Your task to perform on an android device: Open calendar and show me the fourth week of next month Image 0: 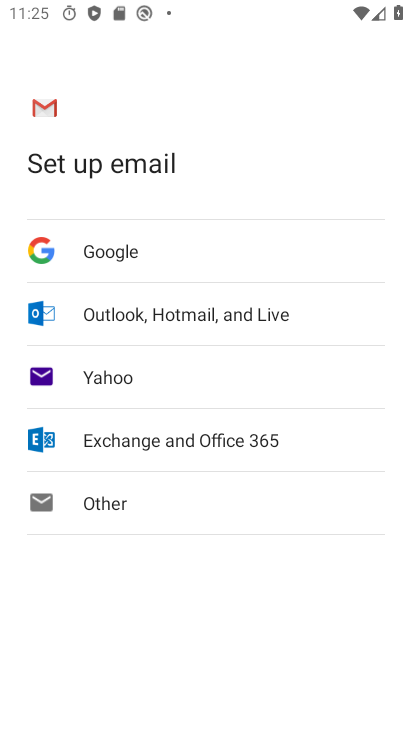
Step 0: press back button
Your task to perform on an android device: Open calendar and show me the fourth week of next month Image 1: 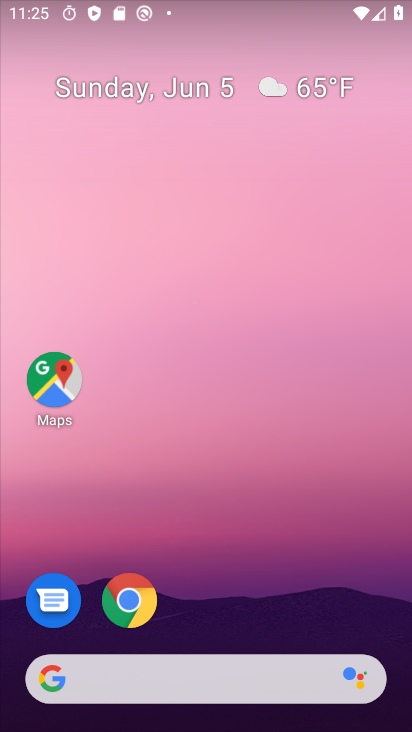
Step 1: drag from (183, 689) to (211, 12)
Your task to perform on an android device: Open calendar and show me the fourth week of next month Image 2: 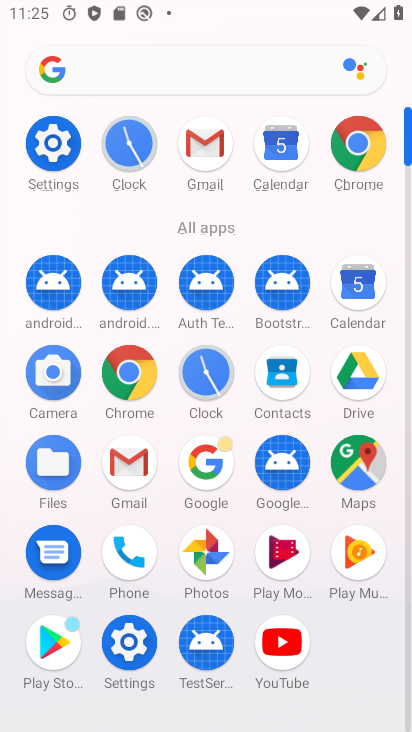
Step 2: click (358, 287)
Your task to perform on an android device: Open calendar and show me the fourth week of next month Image 3: 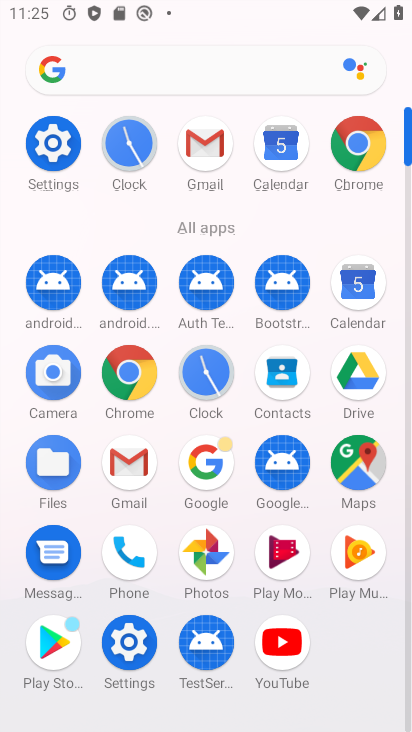
Step 3: click (358, 287)
Your task to perform on an android device: Open calendar and show me the fourth week of next month Image 4: 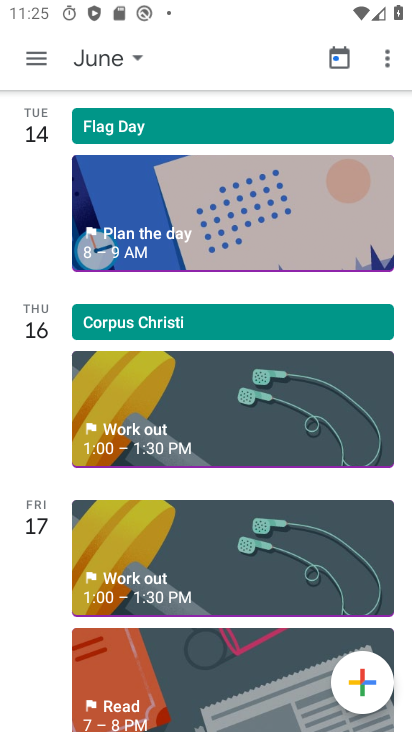
Step 4: click (136, 59)
Your task to perform on an android device: Open calendar and show me the fourth week of next month Image 5: 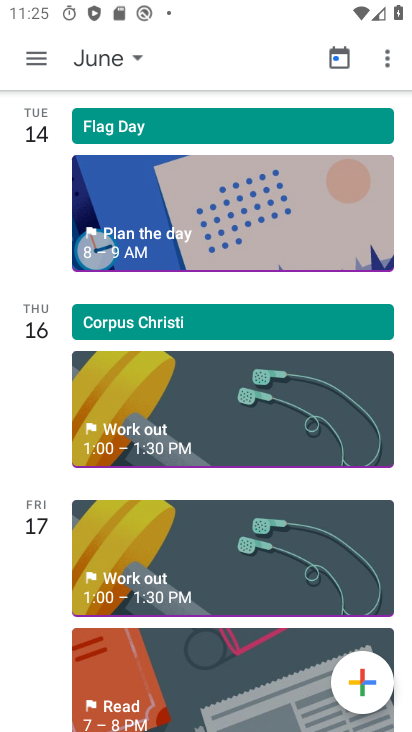
Step 5: click (140, 59)
Your task to perform on an android device: Open calendar and show me the fourth week of next month Image 6: 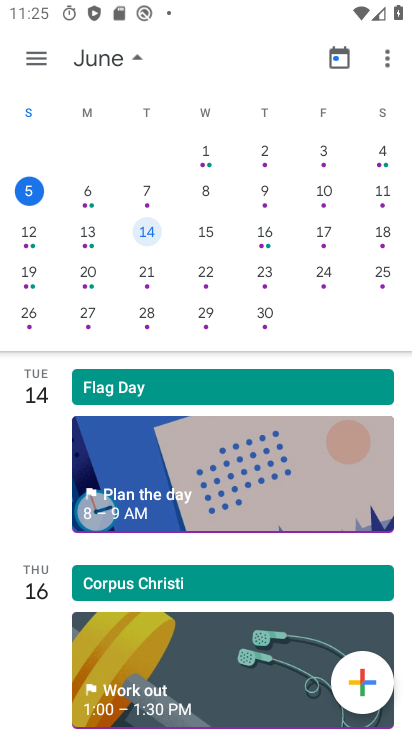
Step 6: click (205, 274)
Your task to perform on an android device: Open calendar and show me the fourth week of next month Image 7: 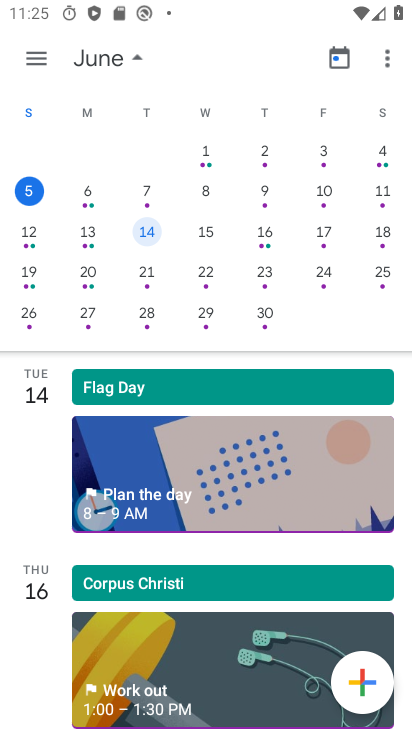
Step 7: click (205, 274)
Your task to perform on an android device: Open calendar and show me the fourth week of next month Image 8: 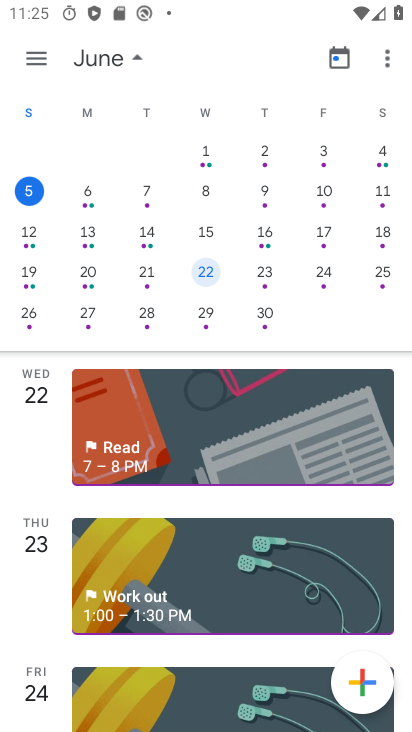
Step 8: click (205, 274)
Your task to perform on an android device: Open calendar and show me the fourth week of next month Image 9: 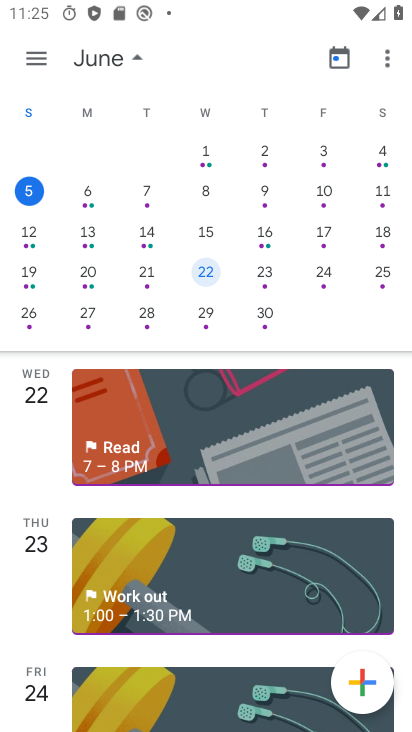
Step 9: click (206, 276)
Your task to perform on an android device: Open calendar and show me the fourth week of next month Image 10: 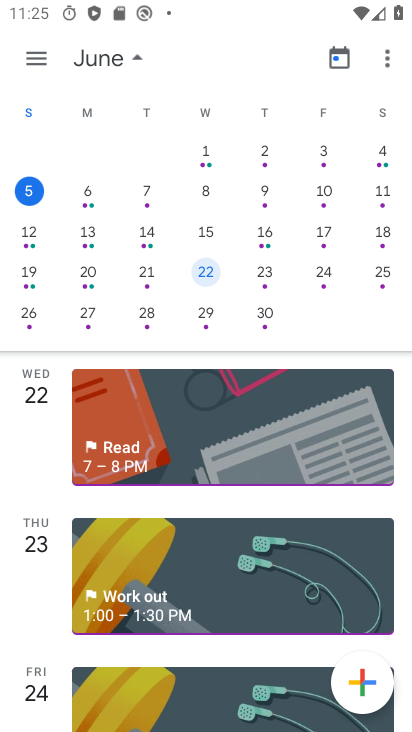
Step 10: task complete